Your task to perform on an android device: toggle translation in the chrome app Image 0: 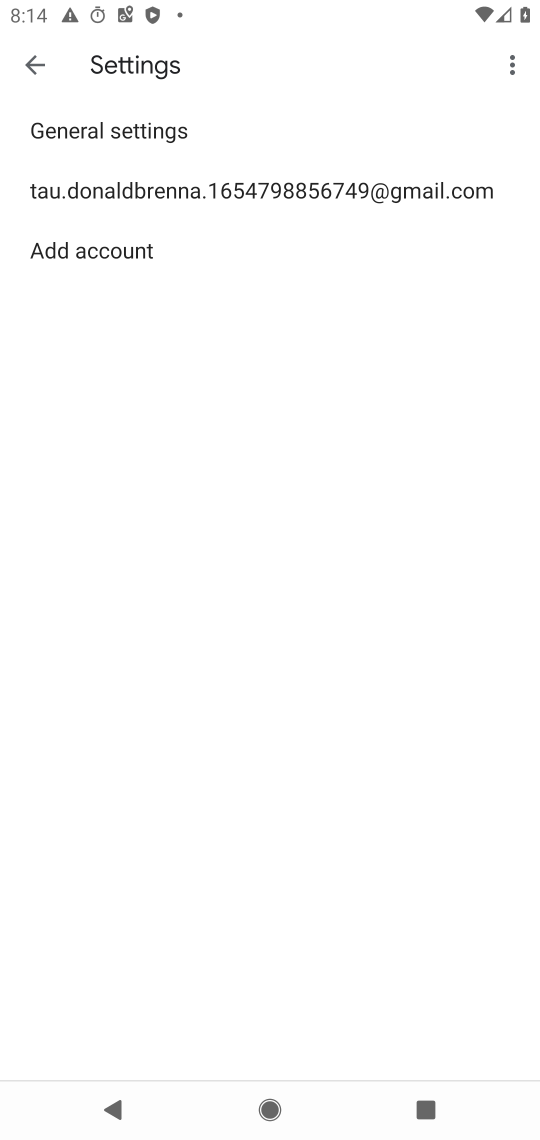
Step 0: press home button
Your task to perform on an android device: toggle translation in the chrome app Image 1: 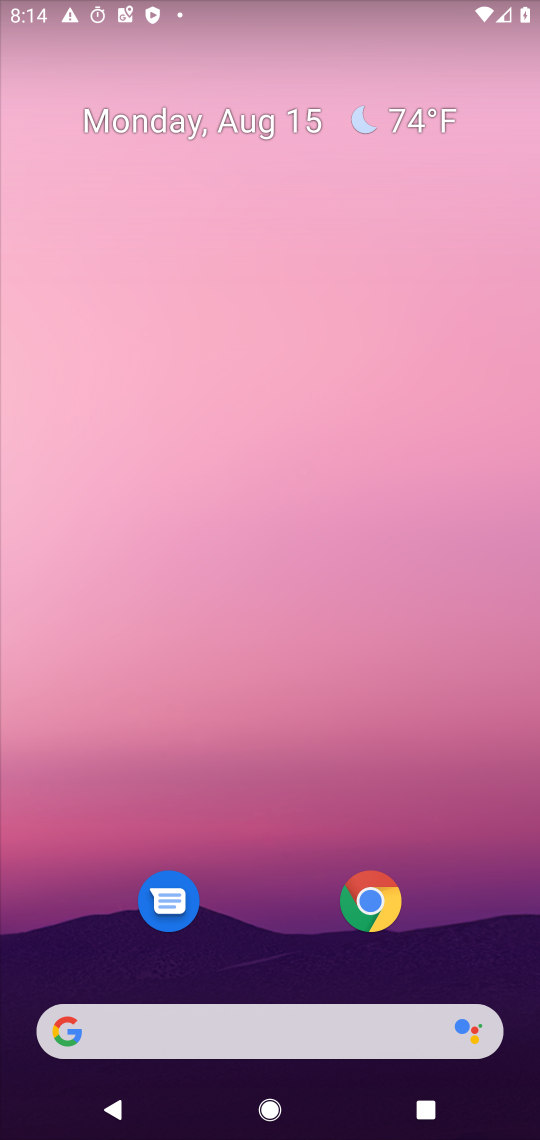
Step 1: click (357, 896)
Your task to perform on an android device: toggle translation in the chrome app Image 2: 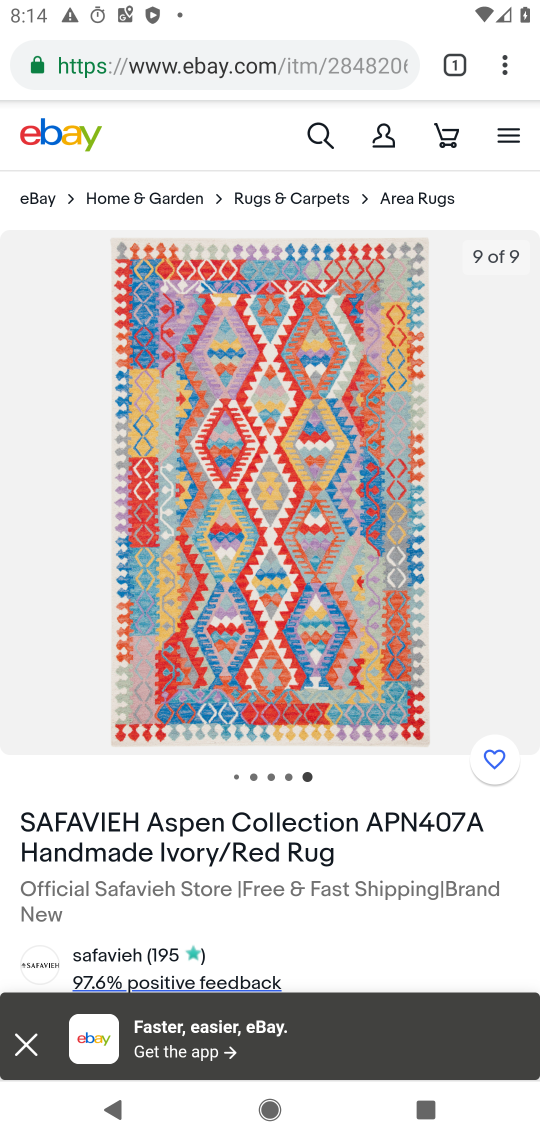
Step 2: click (517, 76)
Your task to perform on an android device: toggle translation in the chrome app Image 3: 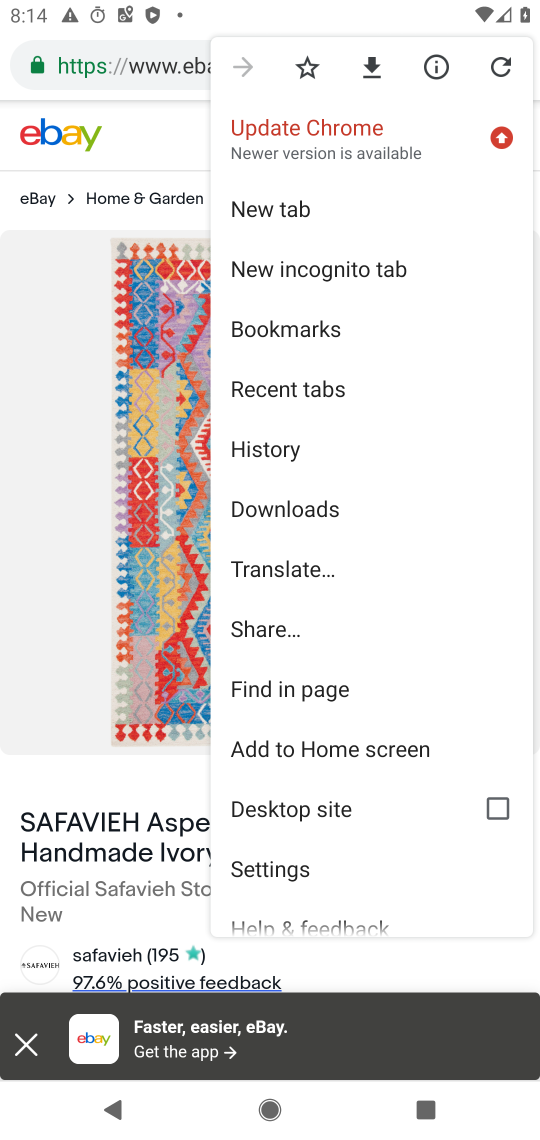
Step 3: click (292, 876)
Your task to perform on an android device: toggle translation in the chrome app Image 4: 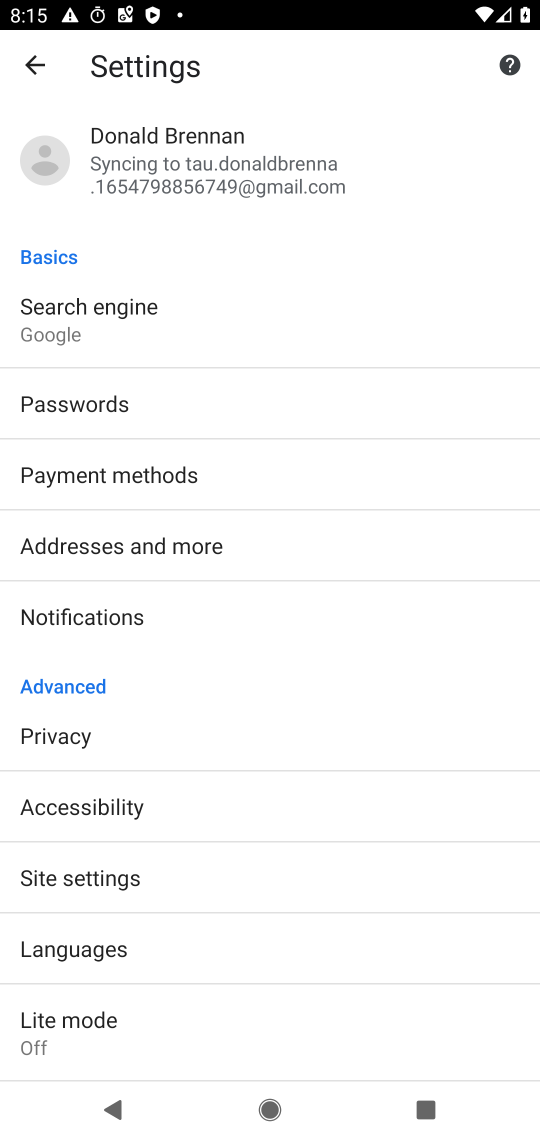
Step 4: click (112, 949)
Your task to perform on an android device: toggle translation in the chrome app Image 5: 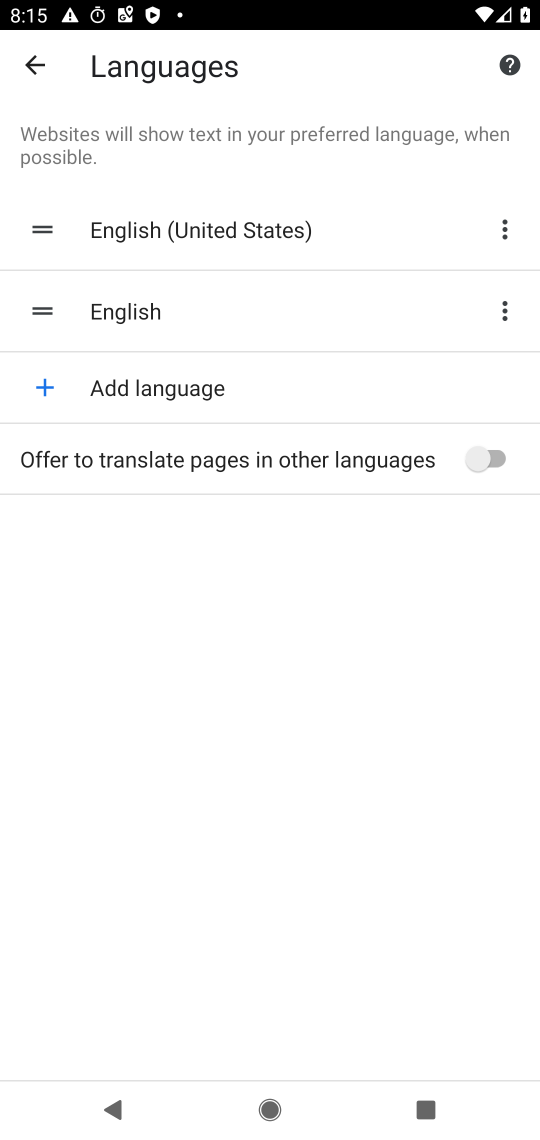
Step 5: click (514, 455)
Your task to perform on an android device: toggle translation in the chrome app Image 6: 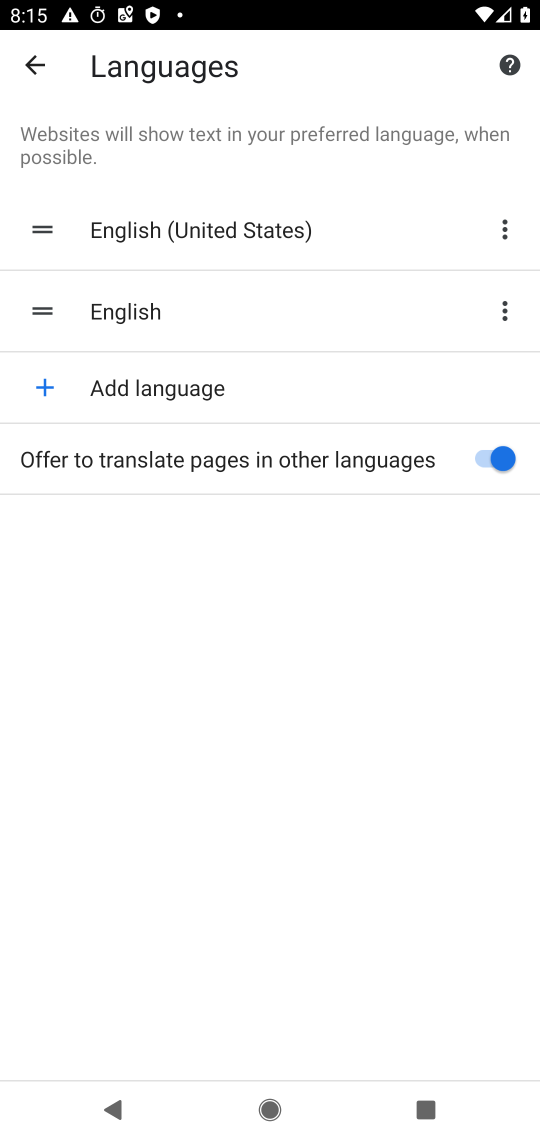
Step 6: task complete